Your task to perform on an android device: turn off improve location accuracy Image 0: 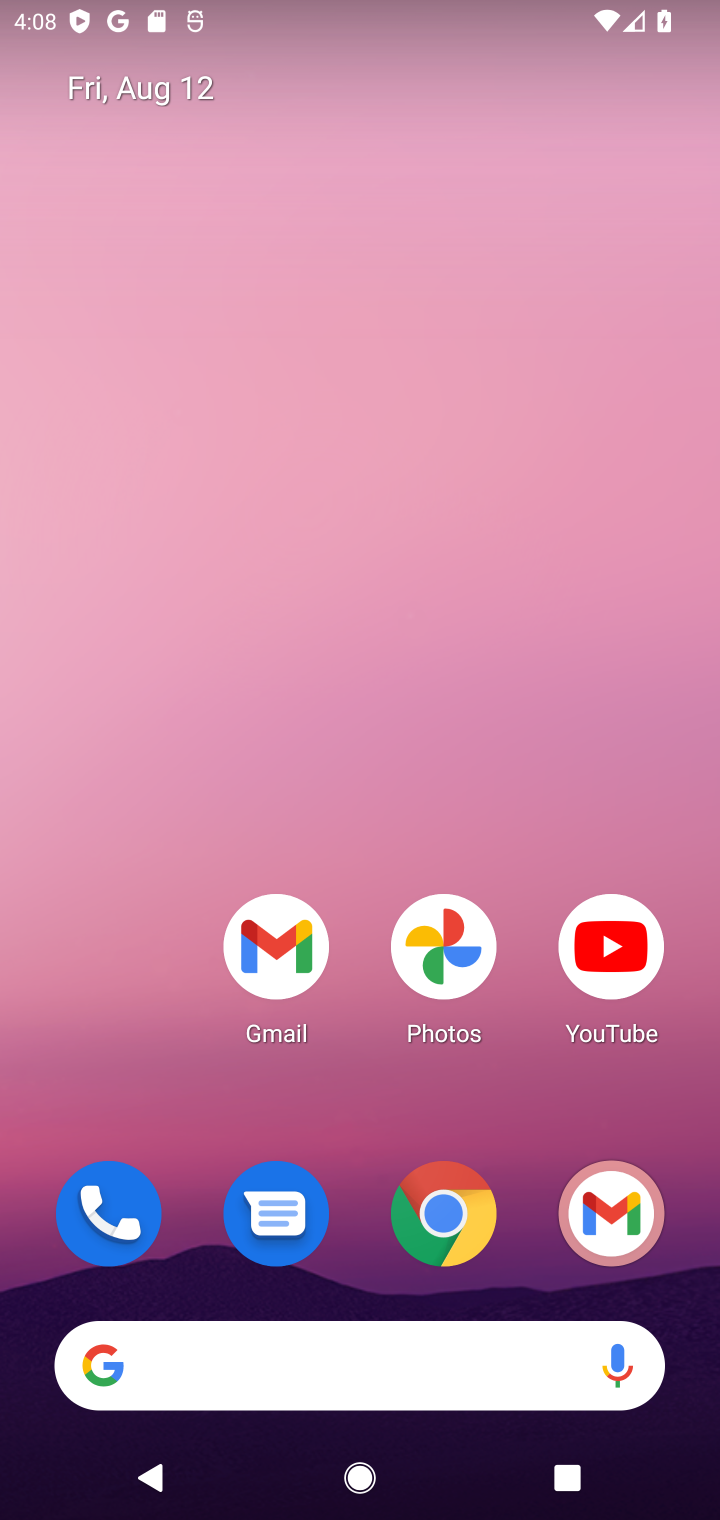
Step 0: drag from (186, 1102) to (233, 90)
Your task to perform on an android device: turn off improve location accuracy Image 1: 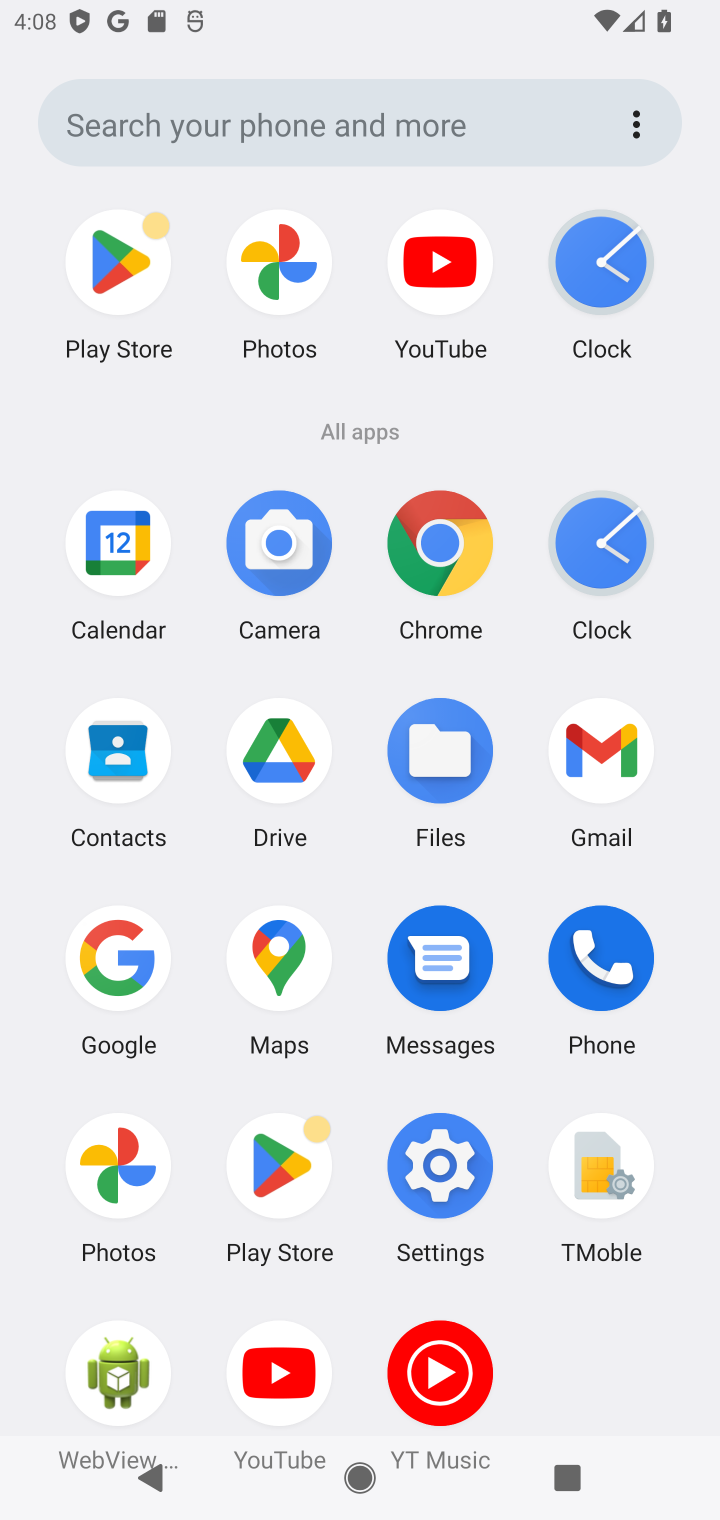
Step 1: click (426, 1172)
Your task to perform on an android device: turn off improve location accuracy Image 2: 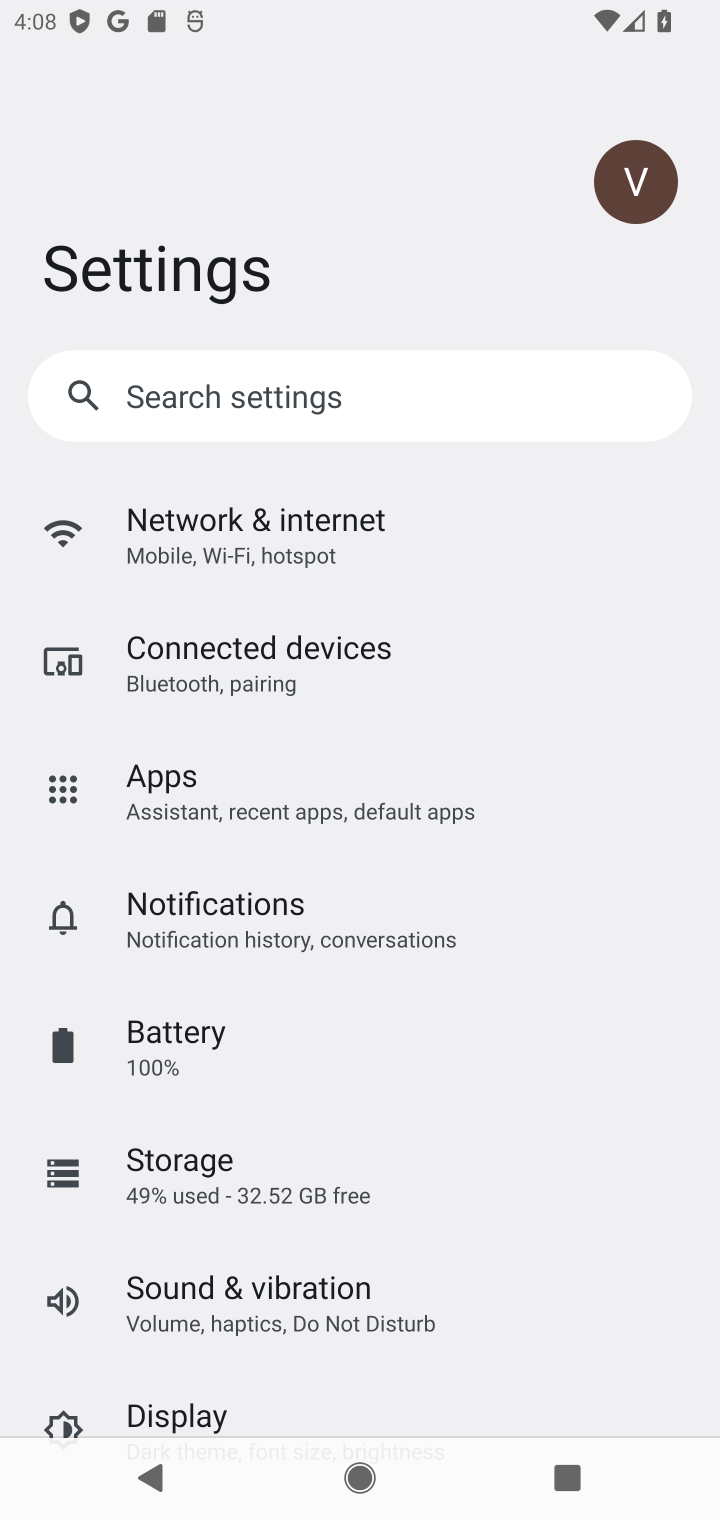
Step 2: drag from (429, 1221) to (515, 274)
Your task to perform on an android device: turn off improve location accuracy Image 3: 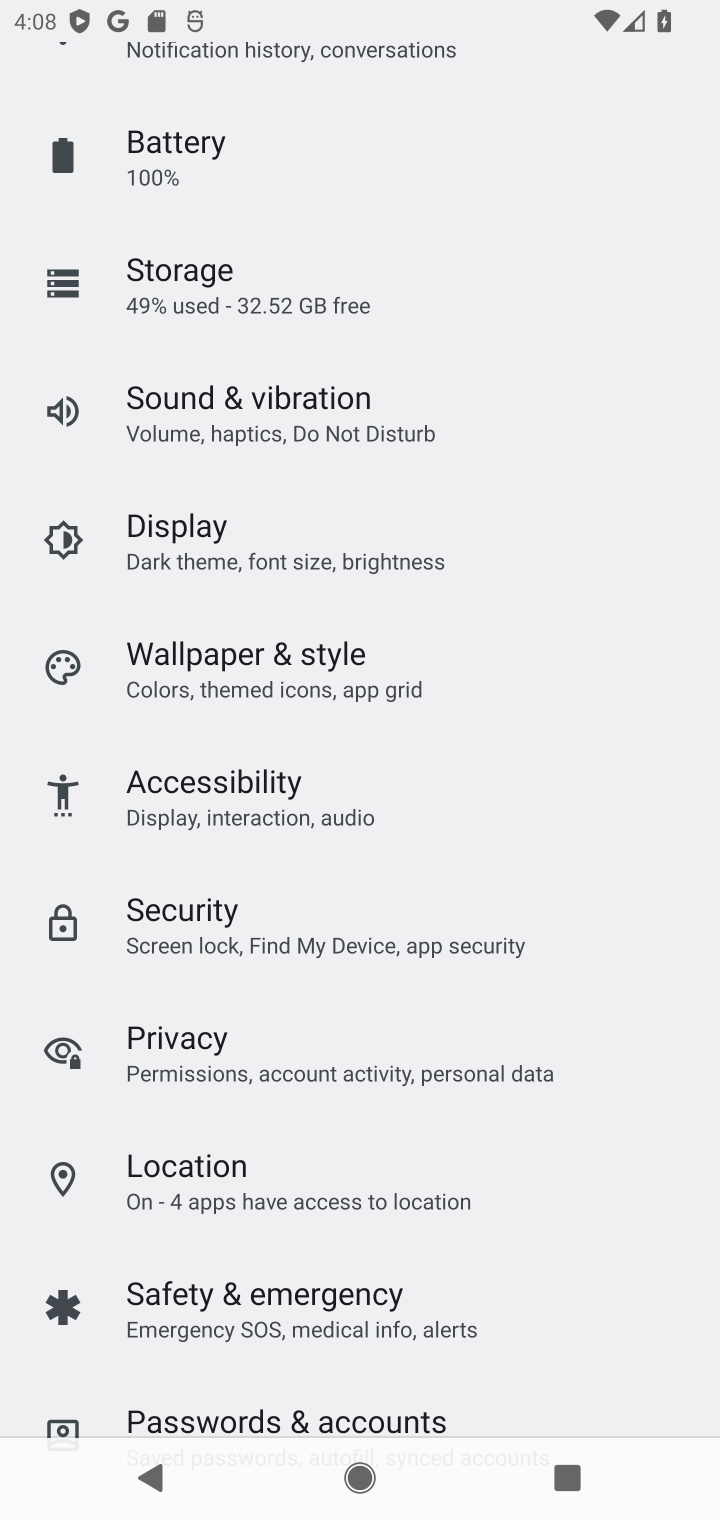
Step 3: click (302, 1192)
Your task to perform on an android device: turn off improve location accuracy Image 4: 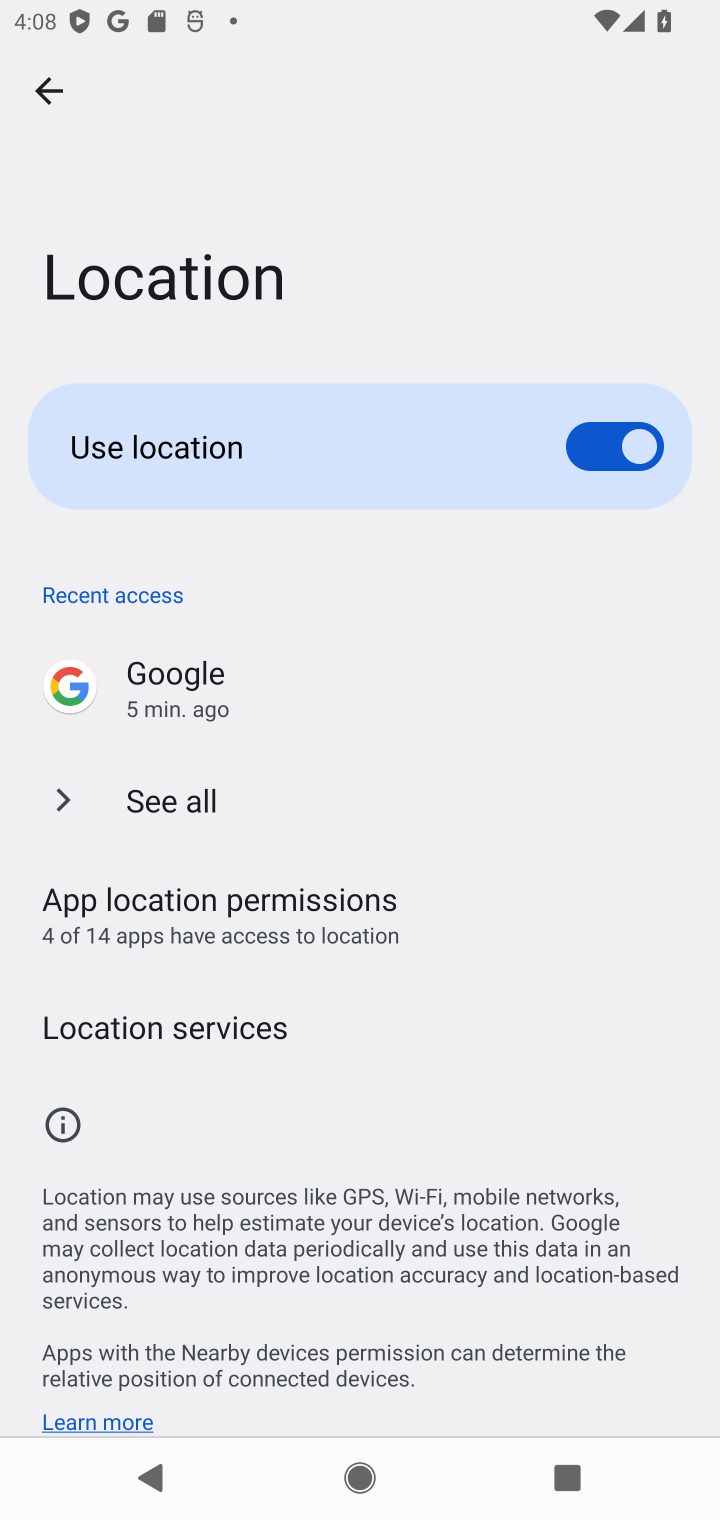
Step 4: click (167, 1013)
Your task to perform on an android device: turn off improve location accuracy Image 5: 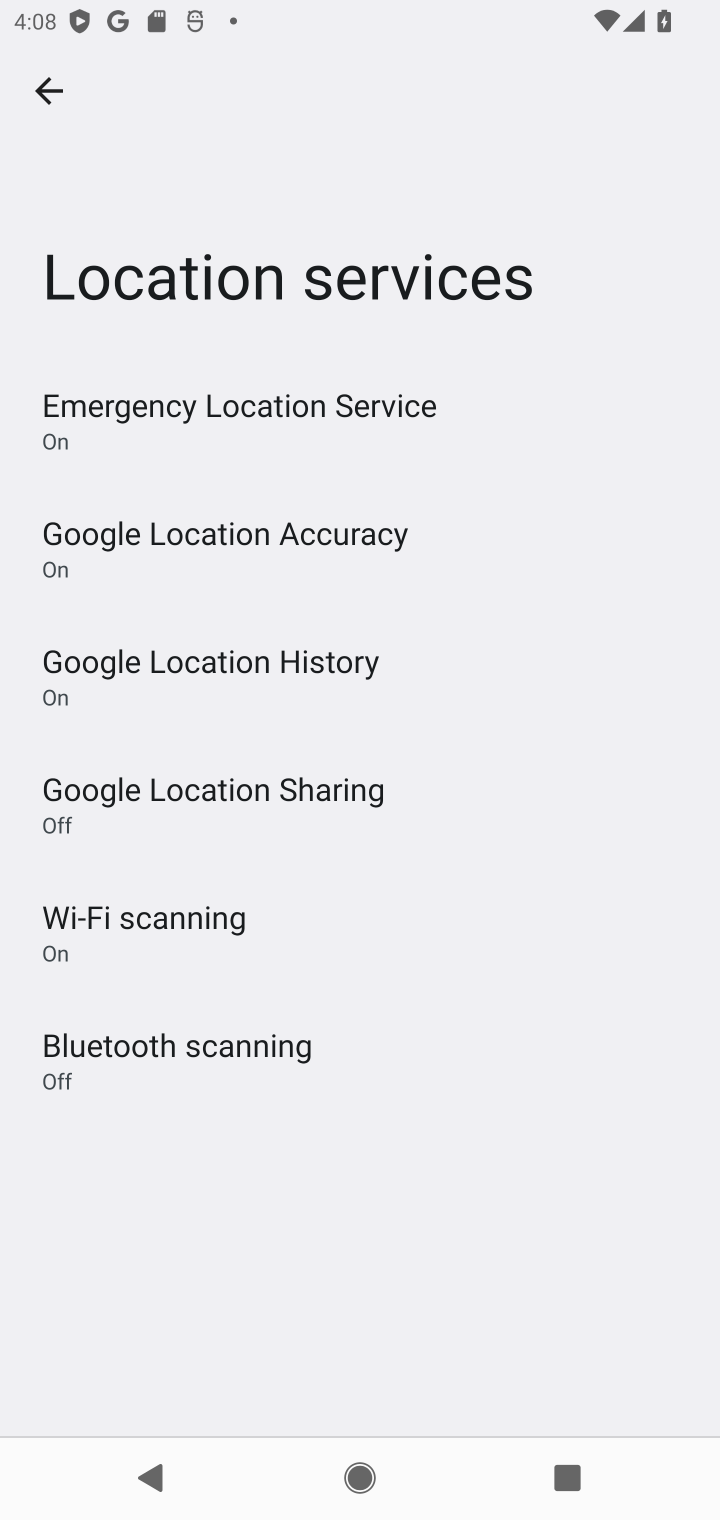
Step 5: click (284, 517)
Your task to perform on an android device: turn off improve location accuracy Image 6: 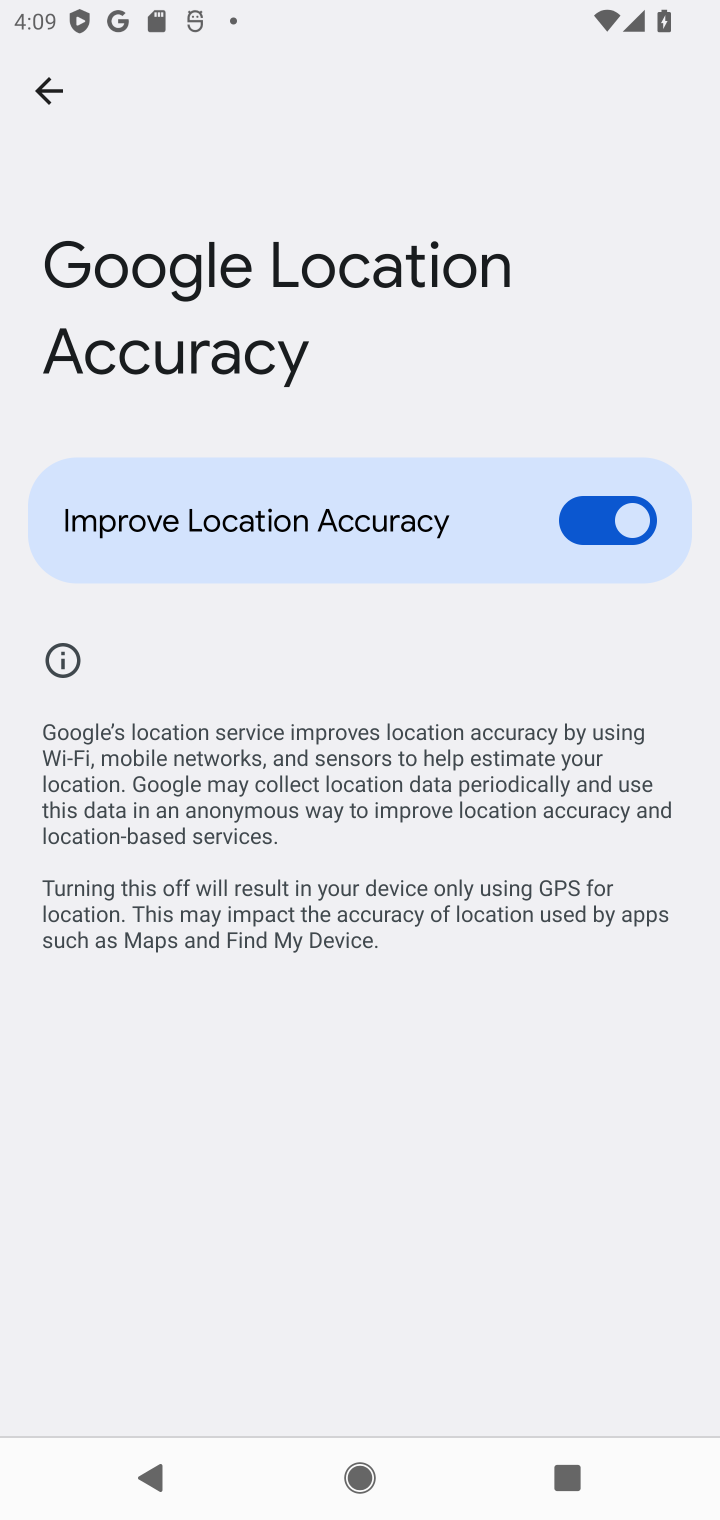
Step 6: click (641, 507)
Your task to perform on an android device: turn off improve location accuracy Image 7: 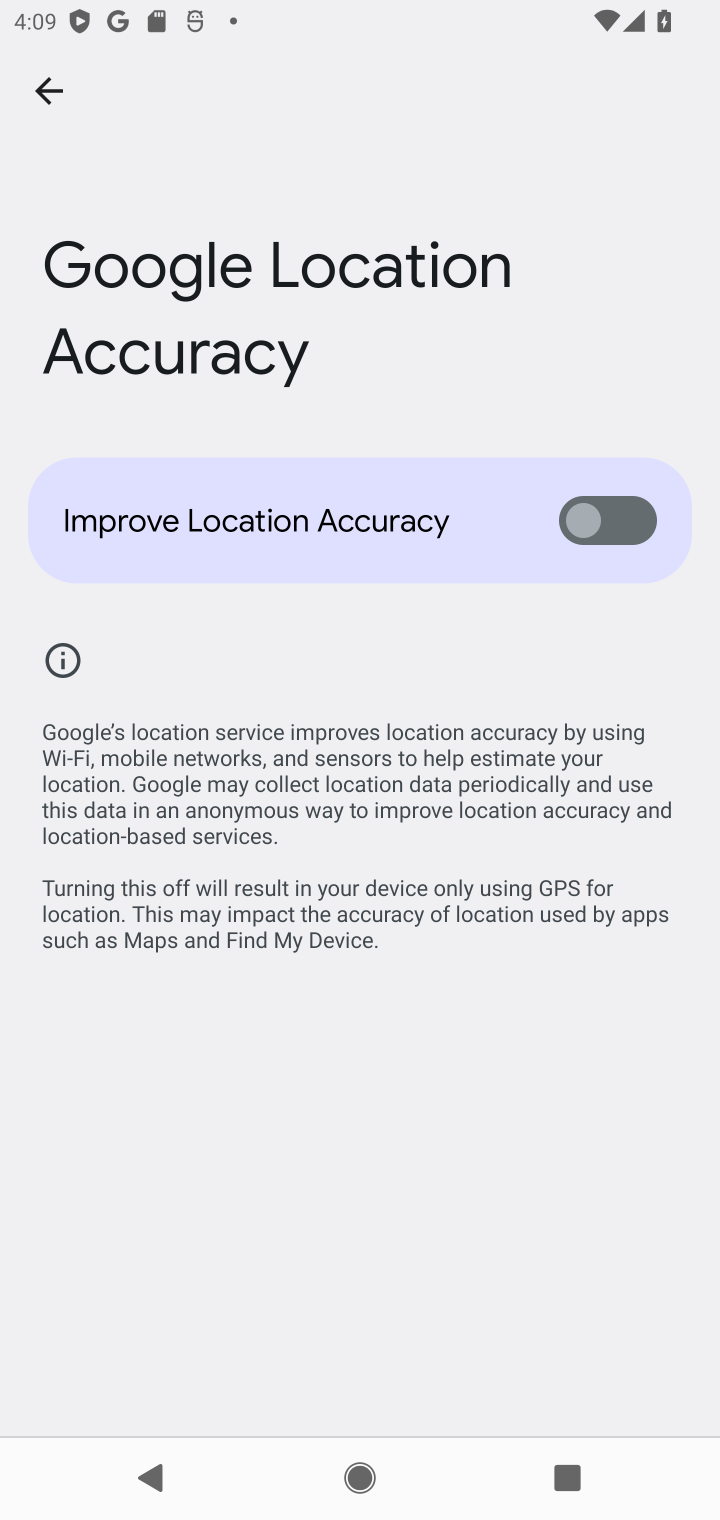
Step 7: task complete